Your task to perform on an android device: Search for seafood restaurants on Google Maps Image 0: 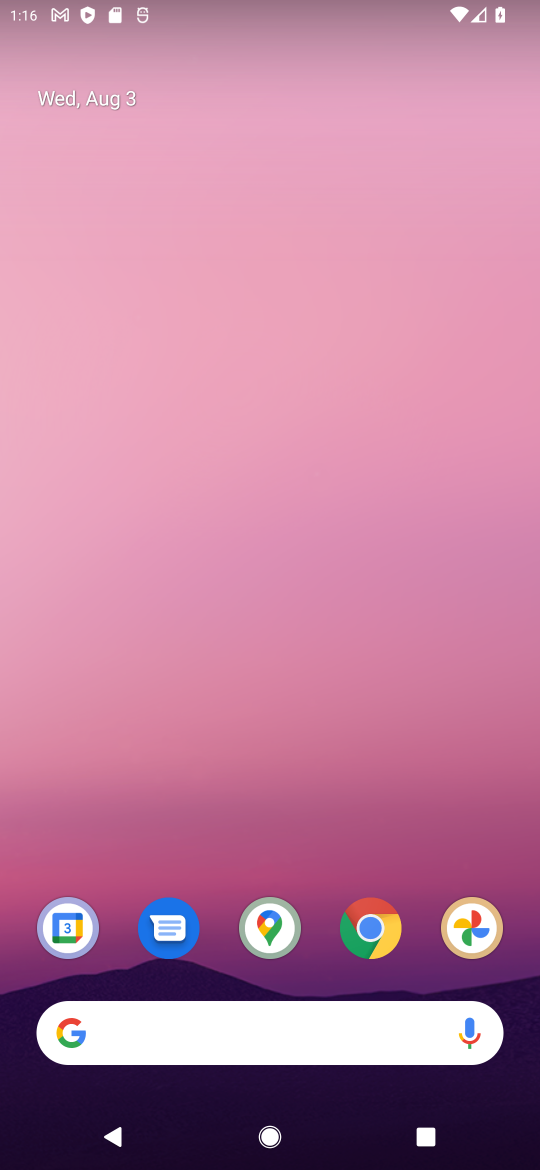
Step 0: click (255, 921)
Your task to perform on an android device: Search for seafood restaurants on Google Maps Image 1: 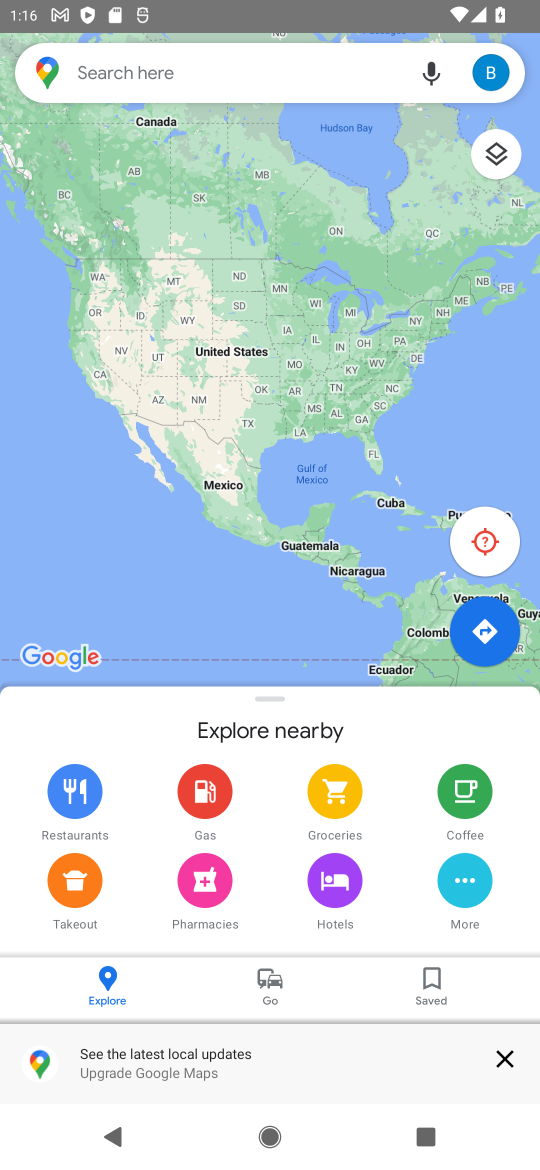
Step 1: click (216, 60)
Your task to perform on an android device: Search for seafood restaurants on Google Maps Image 2: 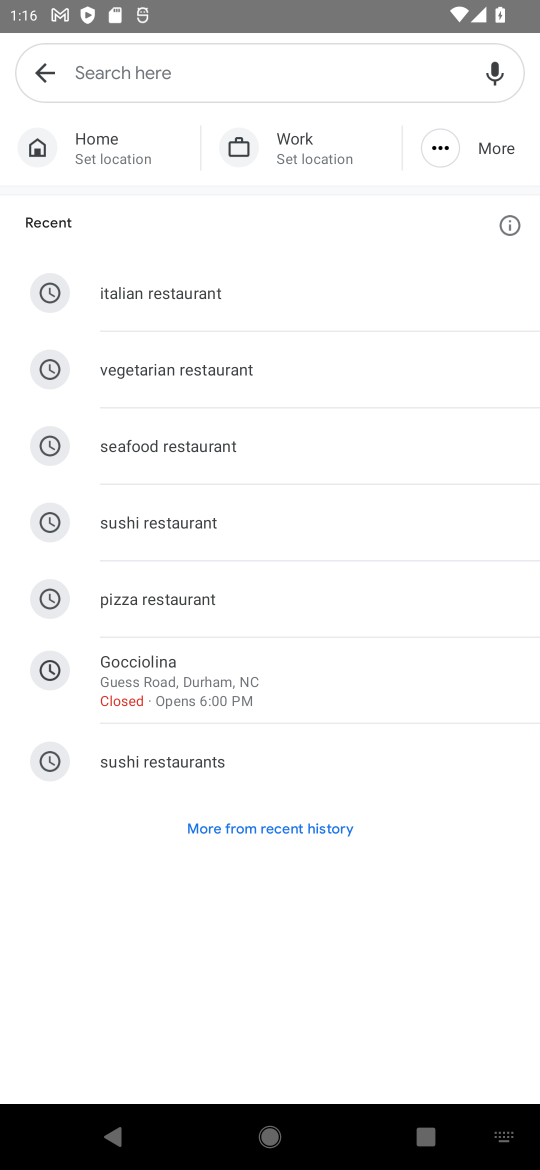
Step 2: click (153, 444)
Your task to perform on an android device: Search for seafood restaurants on Google Maps Image 3: 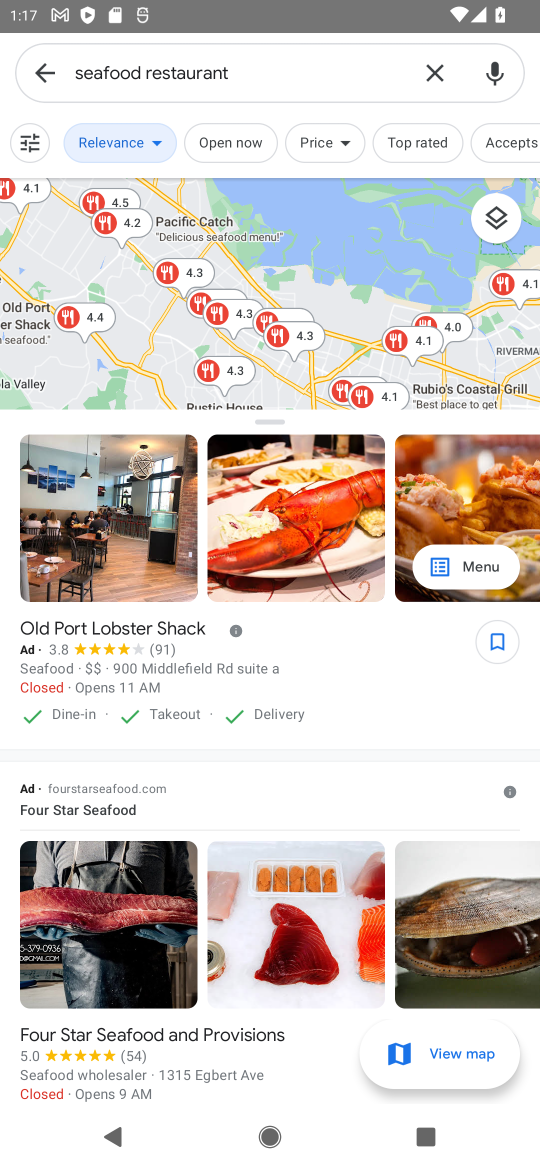
Step 3: task complete